Your task to perform on an android device: Search for "razer thresher" on amazon.com, select the first entry, add it to the cart, then select checkout. Image 0: 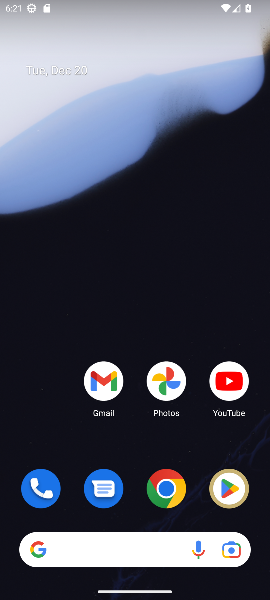
Step 0: drag from (62, 440) to (55, 65)
Your task to perform on an android device: Search for "razer thresher" on amazon.com, select the first entry, add it to the cart, then select checkout. Image 1: 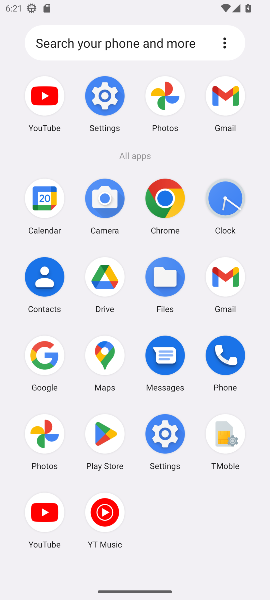
Step 1: click (34, 355)
Your task to perform on an android device: Search for "razer thresher" on amazon.com, select the first entry, add it to the cart, then select checkout. Image 2: 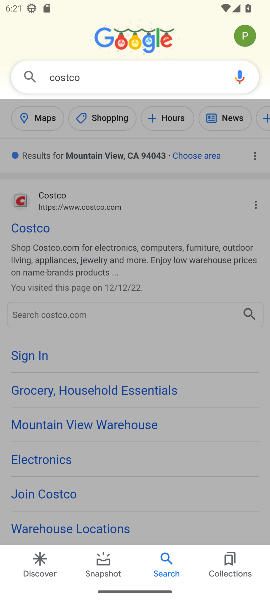
Step 2: click (93, 74)
Your task to perform on an android device: Search for "razer thresher" on amazon.com, select the first entry, add it to the cart, then select checkout. Image 3: 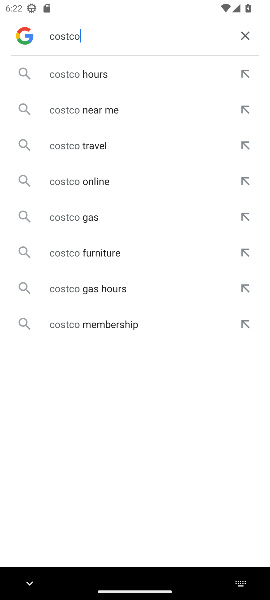
Step 3: click (245, 31)
Your task to perform on an android device: Search for "razer thresher" on amazon.com, select the first entry, add it to the cart, then select checkout. Image 4: 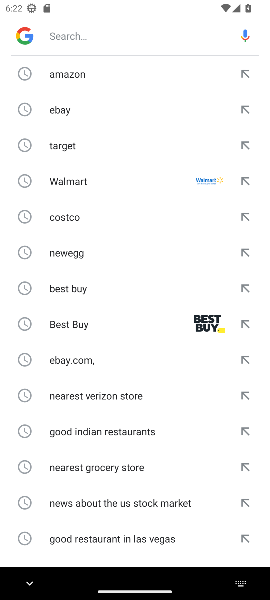
Step 4: type "amazon.com"
Your task to perform on an android device: Search for "razer thresher" on amazon.com, select the first entry, add it to the cart, then select checkout. Image 5: 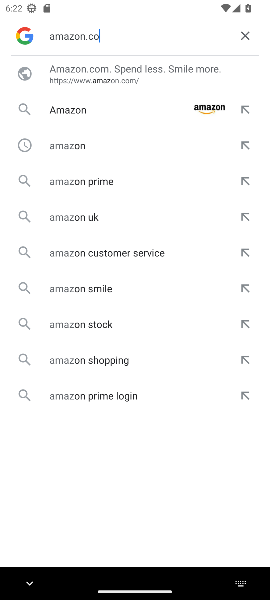
Step 5: press enter
Your task to perform on an android device: Search for "razer thresher" on amazon.com, select the first entry, add it to the cart, then select checkout. Image 6: 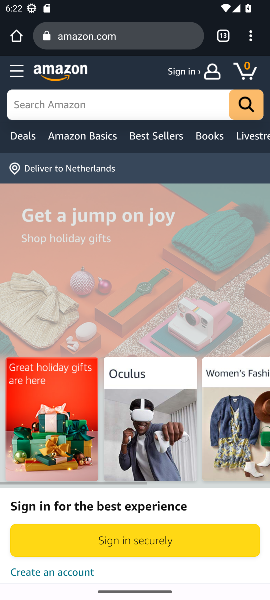
Step 6: click (87, 102)
Your task to perform on an android device: Search for "razer thresher" on amazon.com, select the first entry, add it to the cart, then select checkout. Image 7: 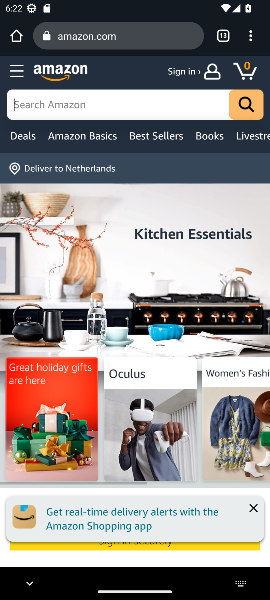
Step 7: type "razer thresher"
Your task to perform on an android device: Search for "razer thresher" on amazon.com, select the first entry, add it to the cart, then select checkout. Image 8: 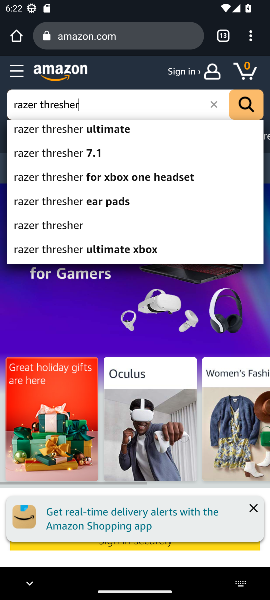
Step 8: click (247, 104)
Your task to perform on an android device: Search for "razer thresher" on amazon.com, select the first entry, add it to the cart, then select checkout. Image 9: 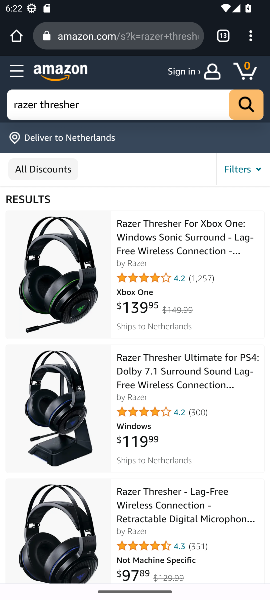
Step 9: click (147, 247)
Your task to perform on an android device: Search for "razer thresher" on amazon.com, select the first entry, add it to the cart, then select checkout. Image 10: 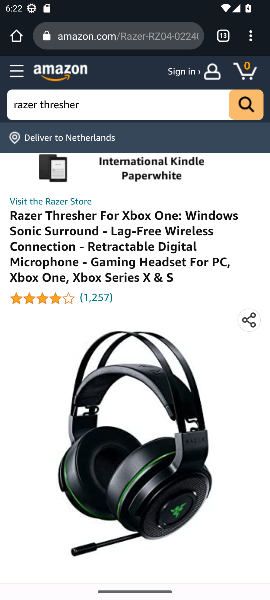
Step 10: drag from (143, 456) to (131, 200)
Your task to perform on an android device: Search for "razer thresher" on amazon.com, select the first entry, add it to the cart, then select checkout. Image 11: 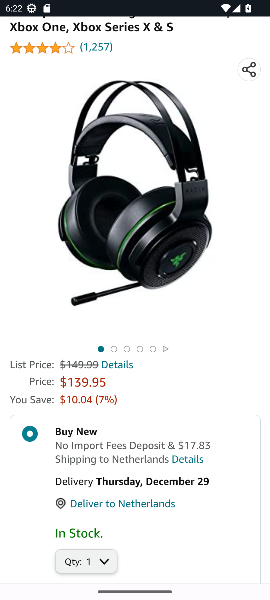
Step 11: drag from (159, 499) to (152, 145)
Your task to perform on an android device: Search for "razer thresher" on amazon.com, select the first entry, add it to the cart, then select checkout. Image 12: 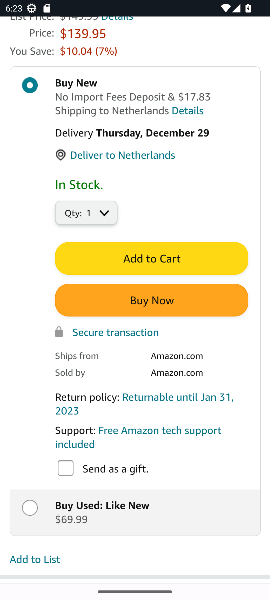
Step 12: click (155, 263)
Your task to perform on an android device: Search for "razer thresher" on amazon.com, select the first entry, add it to the cart, then select checkout. Image 13: 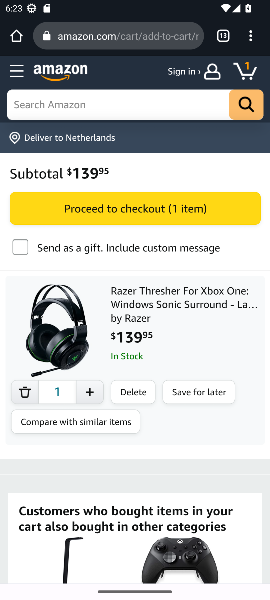
Step 13: click (112, 209)
Your task to perform on an android device: Search for "razer thresher" on amazon.com, select the first entry, add it to the cart, then select checkout. Image 14: 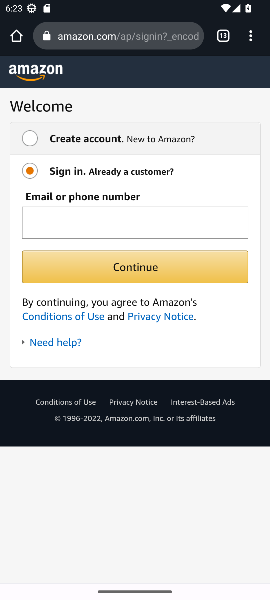
Step 14: task complete